Your task to perform on an android device: turn off wifi Image 0: 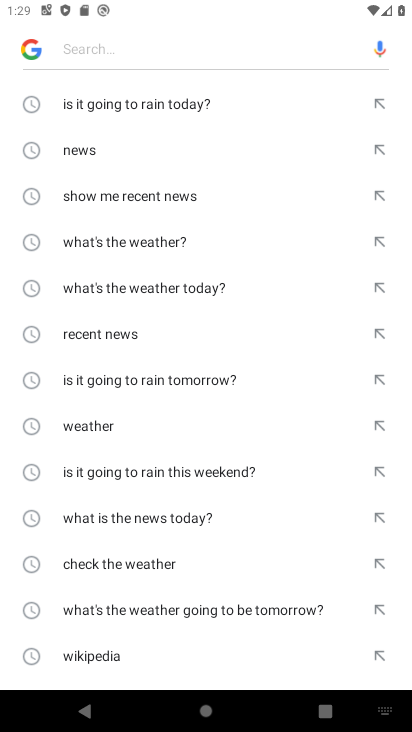
Step 0: press home button
Your task to perform on an android device: turn off wifi Image 1: 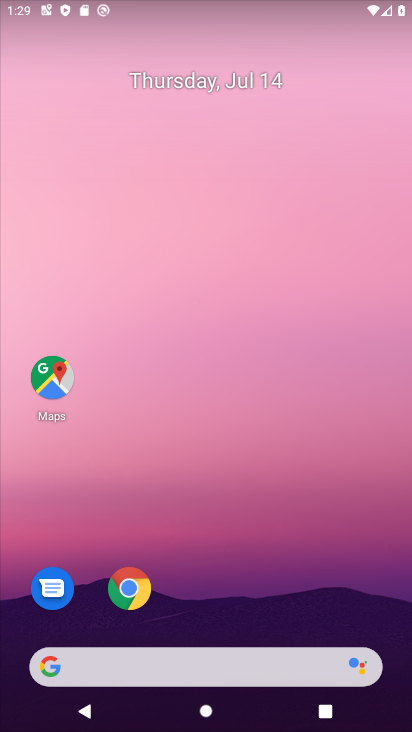
Step 1: drag from (312, 546) to (312, 119)
Your task to perform on an android device: turn off wifi Image 2: 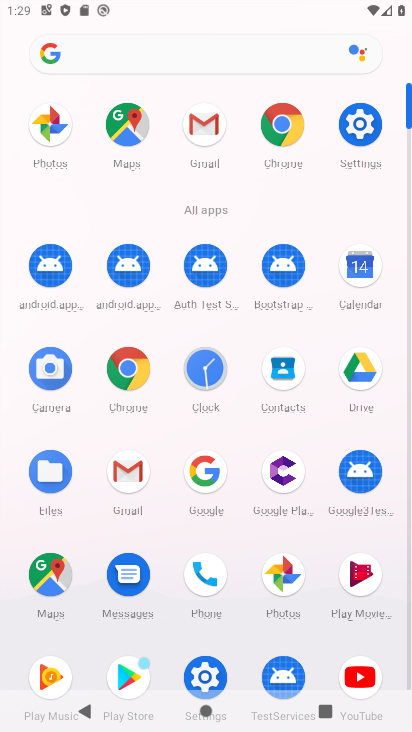
Step 2: click (352, 113)
Your task to perform on an android device: turn off wifi Image 3: 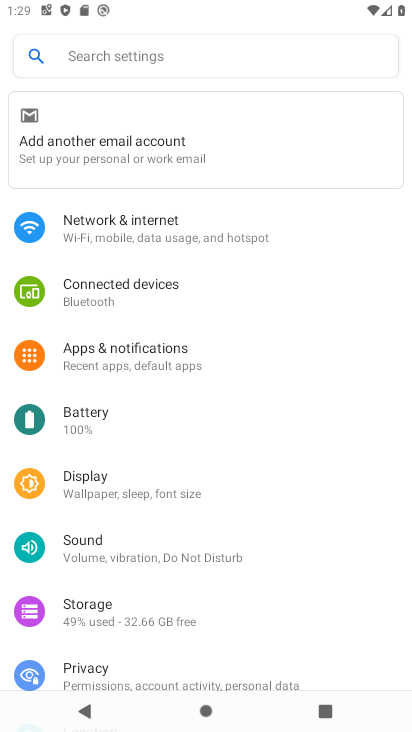
Step 3: click (193, 205)
Your task to perform on an android device: turn off wifi Image 4: 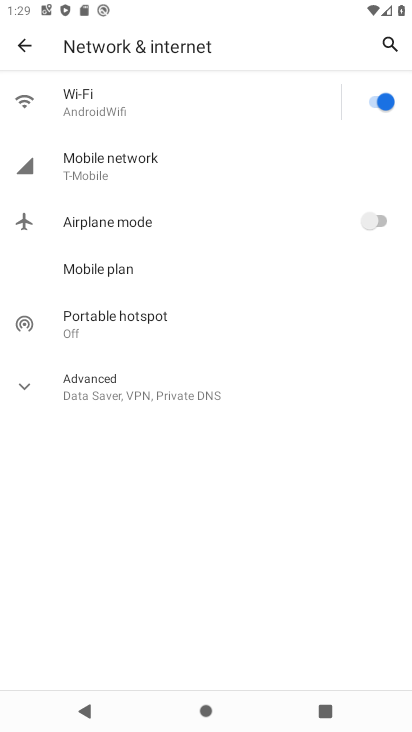
Step 4: click (382, 93)
Your task to perform on an android device: turn off wifi Image 5: 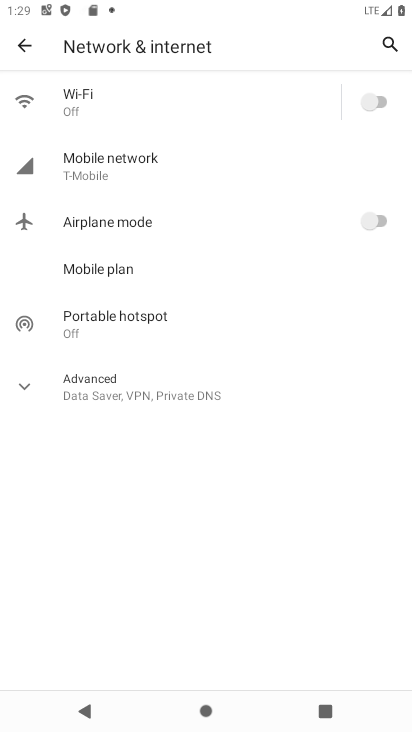
Step 5: task complete